Your task to perform on an android device: turn on the 12-hour format for clock Image 0: 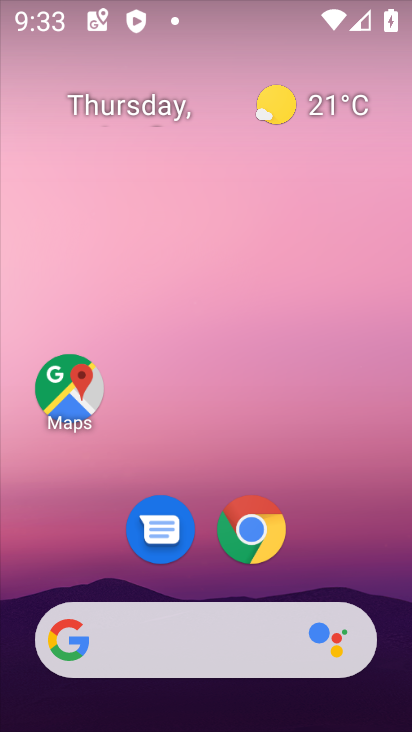
Step 0: drag from (232, 707) to (407, 143)
Your task to perform on an android device: turn on the 12-hour format for clock Image 1: 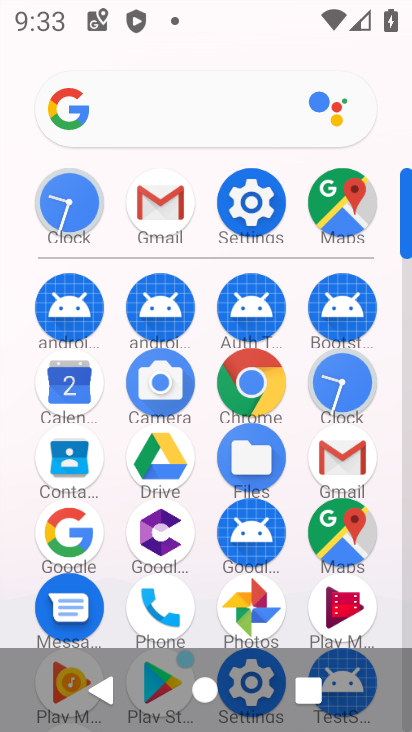
Step 1: click (233, 206)
Your task to perform on an android device: turn on the 12-hour format for clock Image 2: 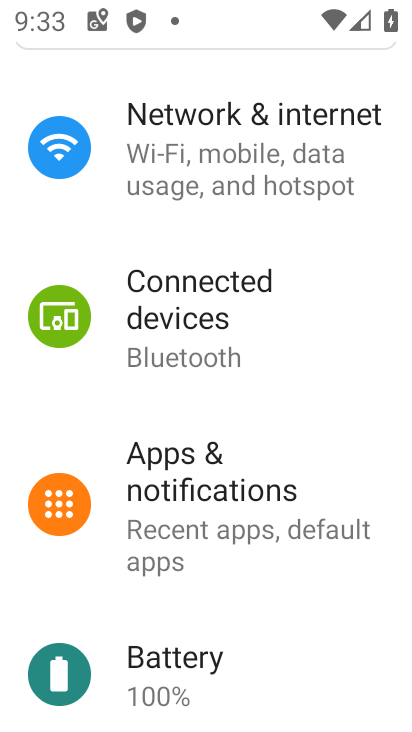
Step 2: press home button
Your task to perform on an android device: turn on the 12-hour format for clock Image 3: 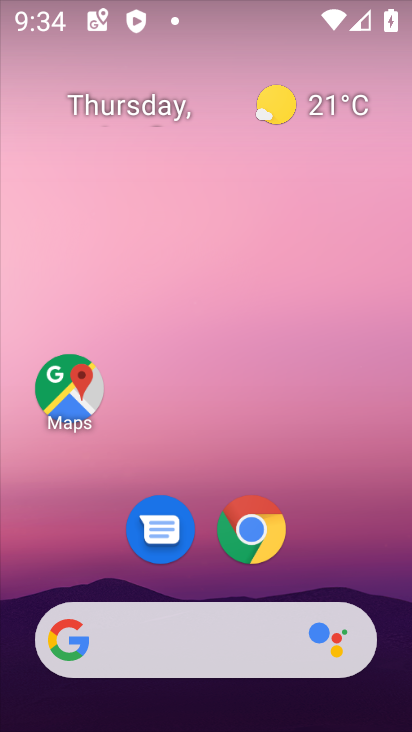
Step 3: drag from (235, 483) to (281, 22)
Your task to perform on an android device: turn on the 12-hour format for clock Image 4: 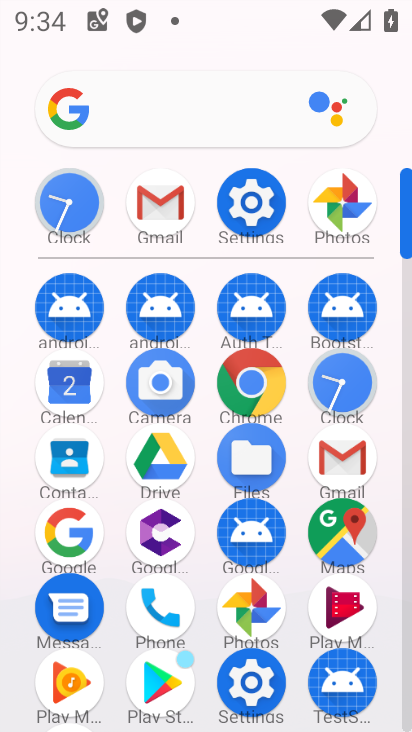
Step 4: click (343, 384)
Your task to perform on an android device: turn on the 12-hour format for clock Image 5: 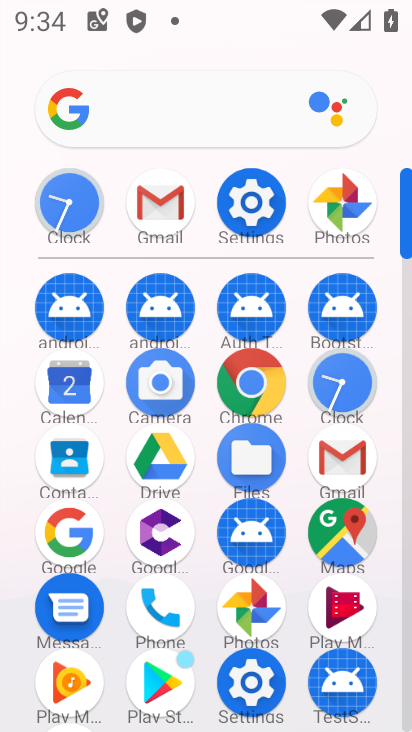
Step 5: click (343, 384)
Your task to perform on an android device: turn on the 12-hour format for clock Image 6: 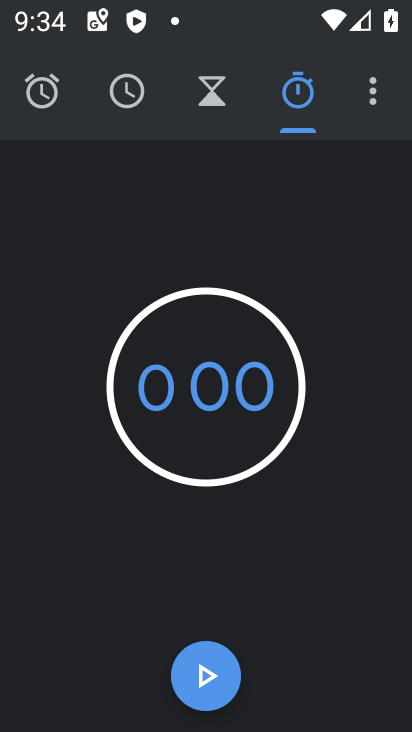
Step 6: click (375, 90)
Your task to perform on an android device: turn on the 12-hour format for clock Image 7: 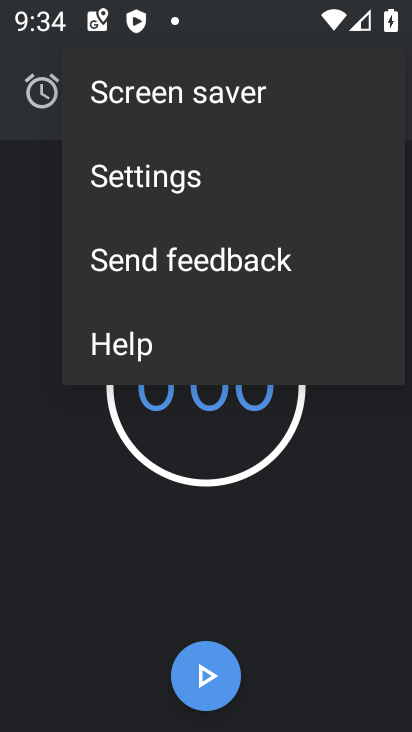
Step 7: click (278, 173)
Your task to perform on an android device: turn on the 12-hour format for clock Image 8: 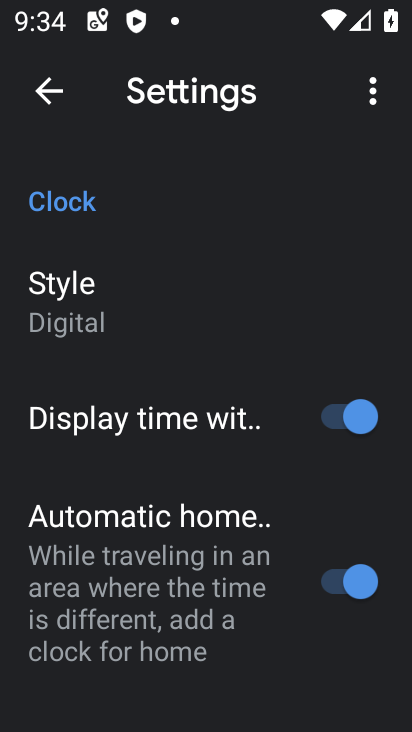
Step 8: drag from (151, 651) to (362, 38)
Your task to perform on an android device: turn on the 12-hour format for clock Image 9: 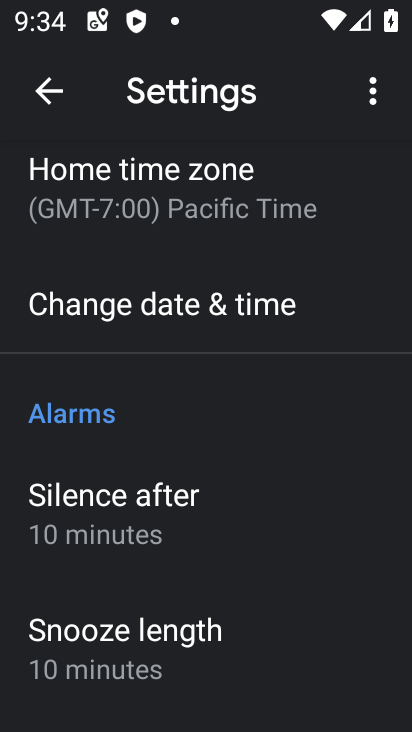
Step 9: click (263, 327)
Your task to perform on an android device: turn on the 12-hour format for clock Image 10: 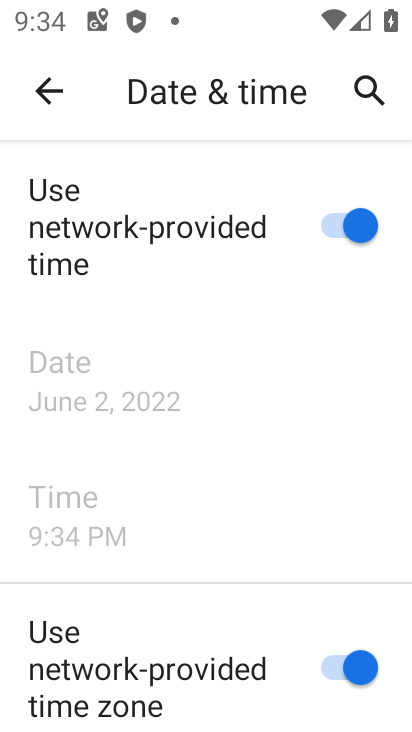
Step 10: task complete